Your task to perform on an android device: see tabs open on other devices in the chrome app Image 0: 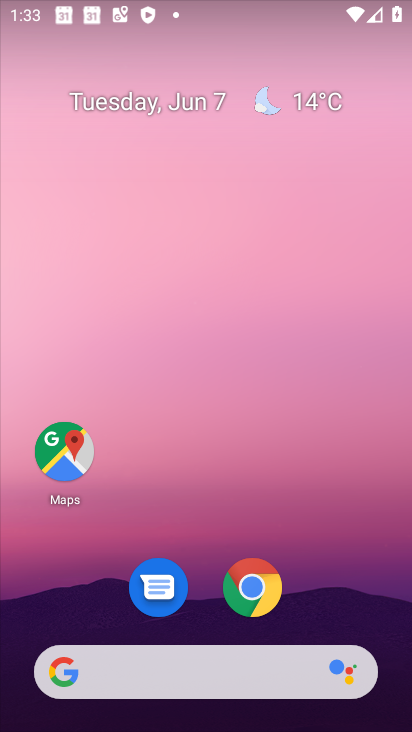
Step 0: drag from (229, 685) to (278, 117)
Your task to perform on an android device: see tabs open on other devices in the chrome app Image 1: 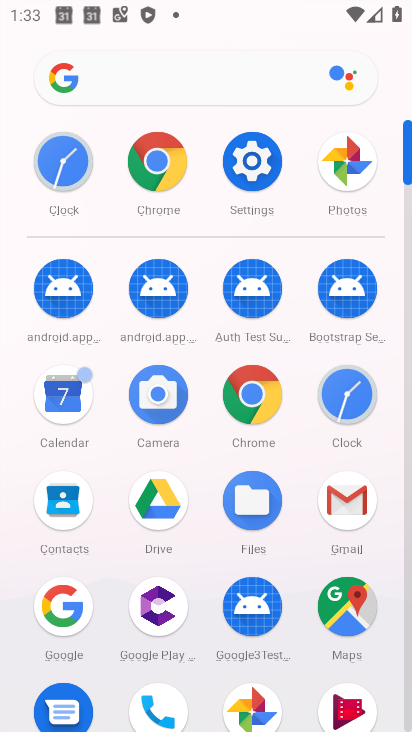
Step 1: click (173, 162)
Your task to perform on an android device: see tabs open on other devices in the chrome app Image 2: 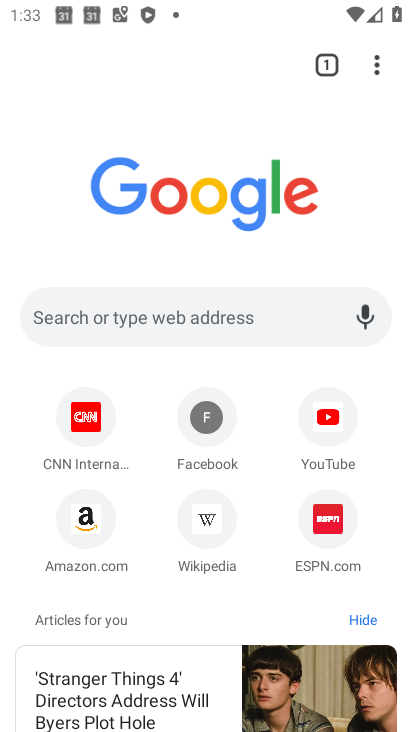
Step 2: task complete